Your task to perform on an android device: open app "Gboard" (install if not already installed) Image 0: 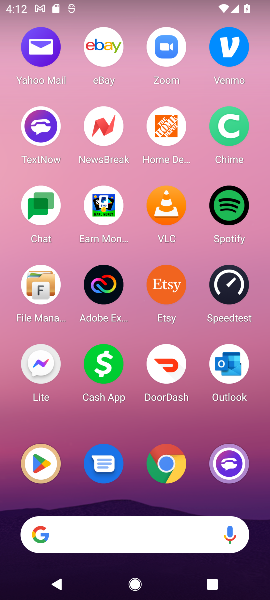
Step 0: press home button
Your task to perform on an android device: open app "Gboard" (install if not already installed) Image 1: 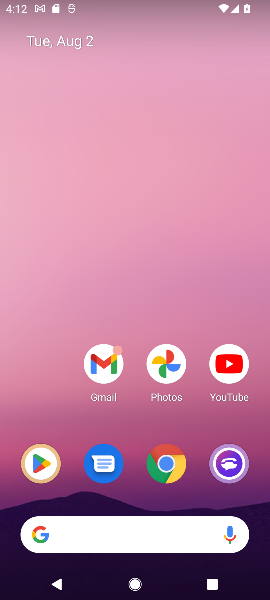
Step 1: click (40, 459)
Your task to perform on an android device: open app "Gboard" (install if not already installed) Image 2: 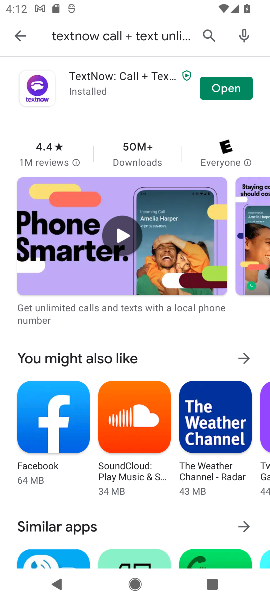
Step 2: click (207, 37)
Your task to perform on an android device: open app "Gboard" (install if not already installed) Image 3: 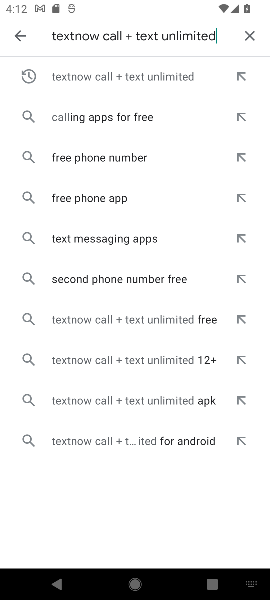
Step 3: click (242, 32)
Your task to perform on an android device: open app "Gboard" (install if not already installed) Image 4: 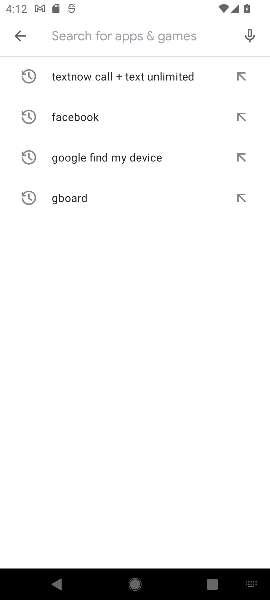
Step 4: type "Gboard"
Your task to perform on an android device: open app "Gboard" (install if not already installed) Image 5: 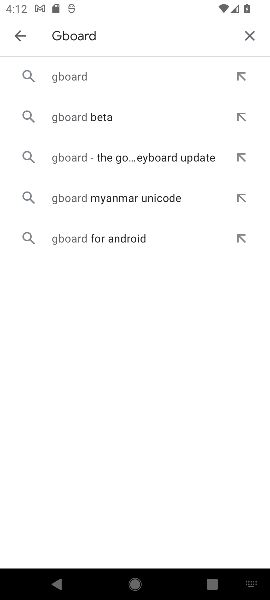
Step 5: click (73, 73)
Your task to perform on an android device: open app "Gboard" (install if not already installed) Image 6: 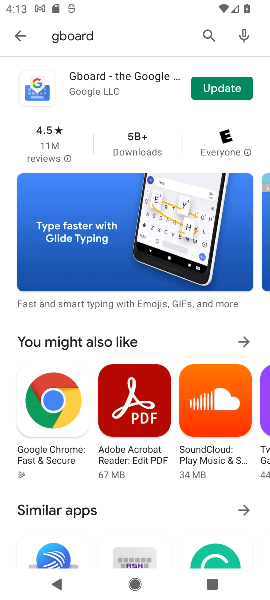
Step 6: task complete